Your task to perform on an android device: Open Google Maps and go to "Timeline" Image 0: 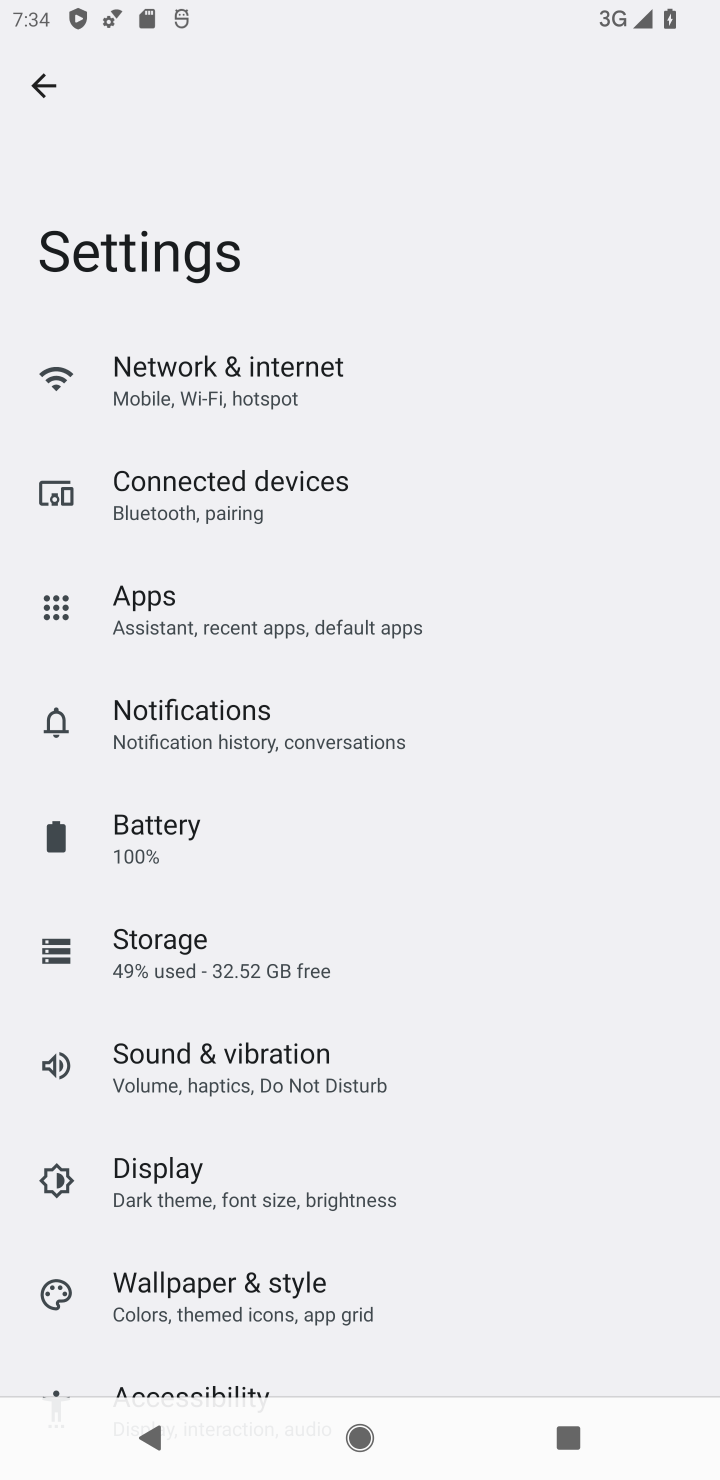
Step 0: press home button
Your task to perform on an android device: Open Google Maps and go to "Timeline" Image 1: 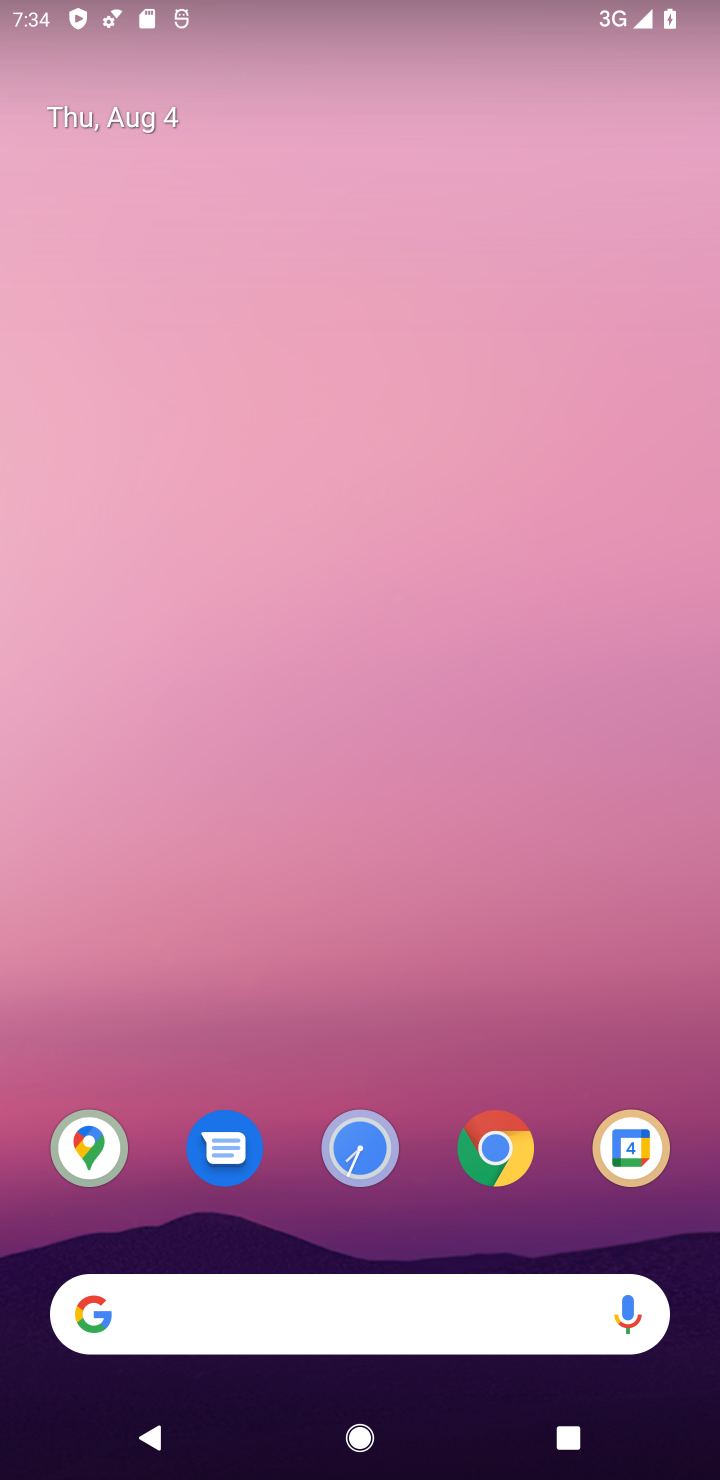
Step 1: drag from (602, 1051) to (444, 285)
Your task to perform on an android device: Open Google Maps and go to "Timeline" Image 2: 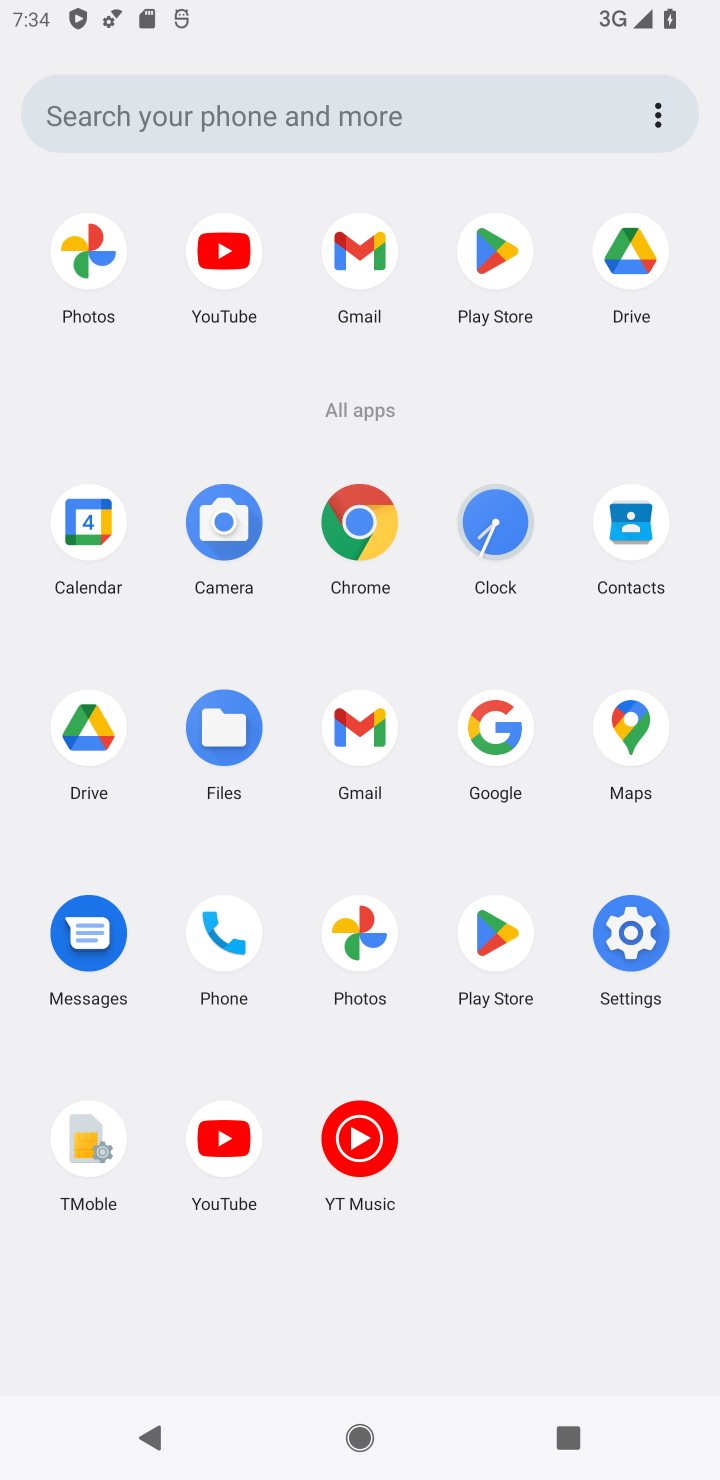
Step 2: click (627, 744)
Your task to perform on an android device: Open Google Maps and go to "Timeline" Image 3: 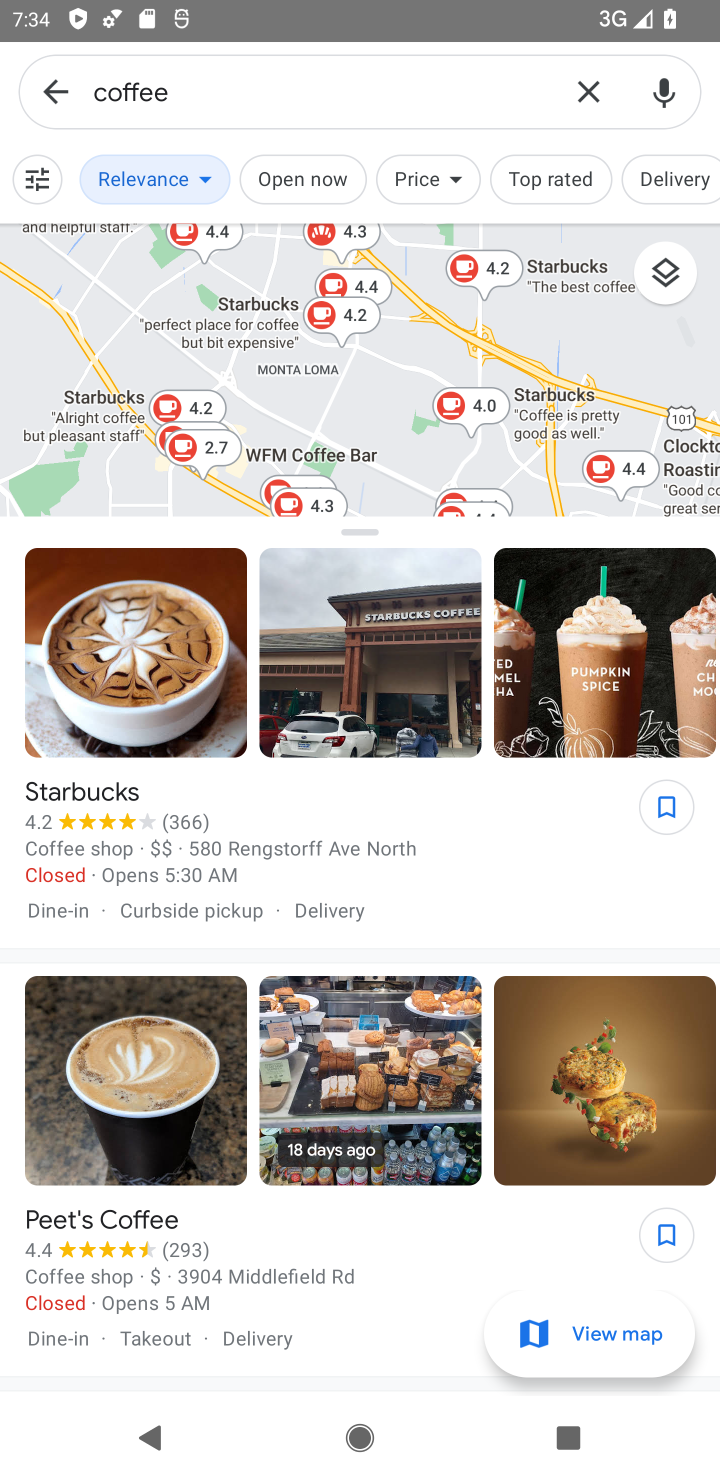
Step 3: click (60, 95)
Your task to perform on an android device: Open Google Maps and go to "Timeline" Image 4: 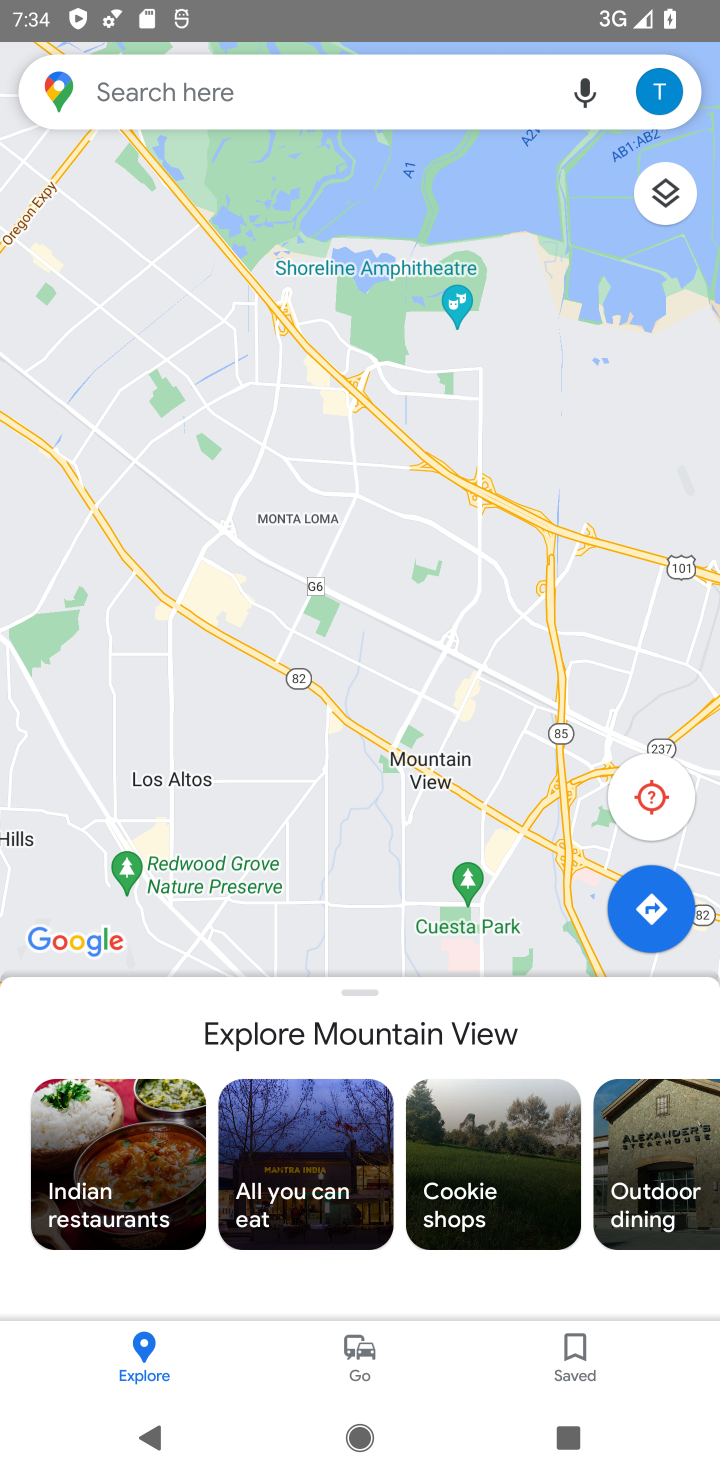
Step 4: click (661, 99)
Your task to perform on an android device: Open Google Maps and go to "Timeline" Image 5: 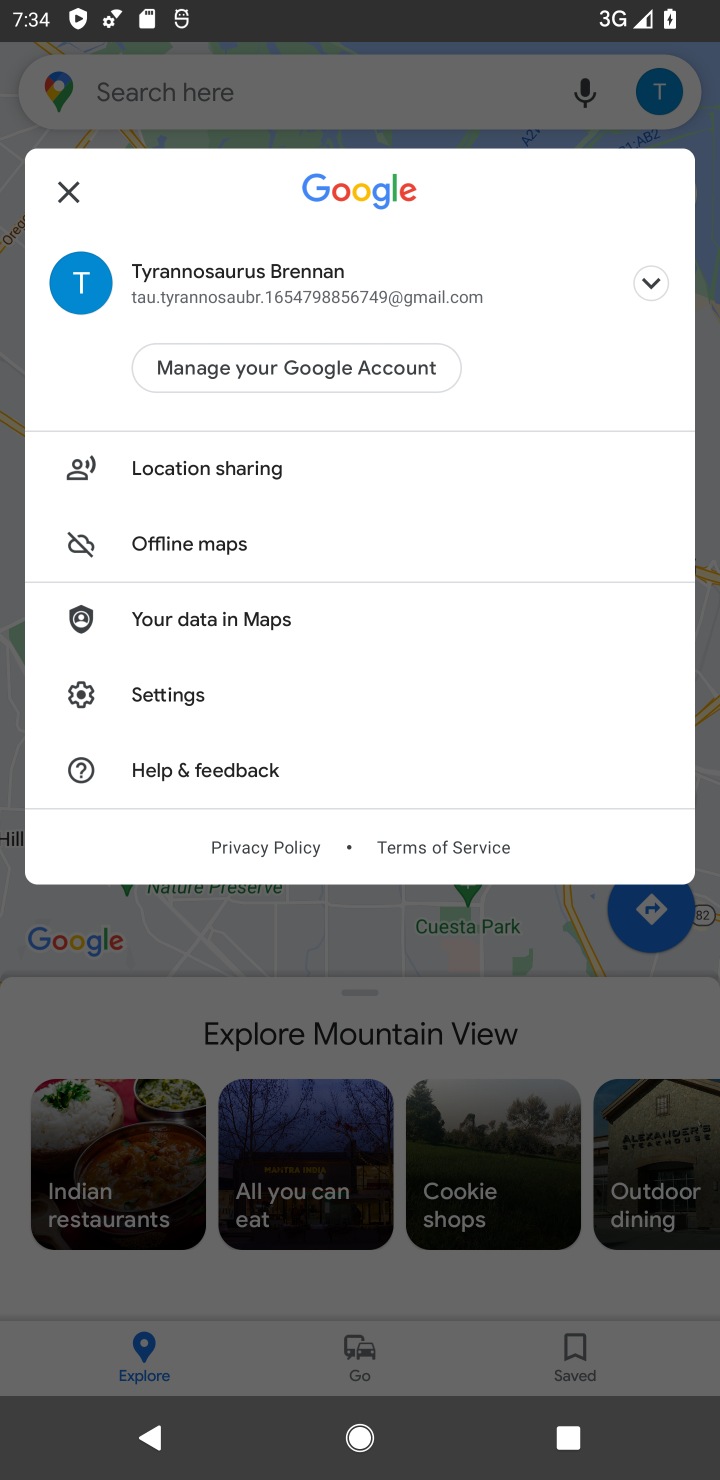
Step 5: click (294, 684)
Your task to perform on an android device: Open Google Maps and go to "Timeline" Image 6: 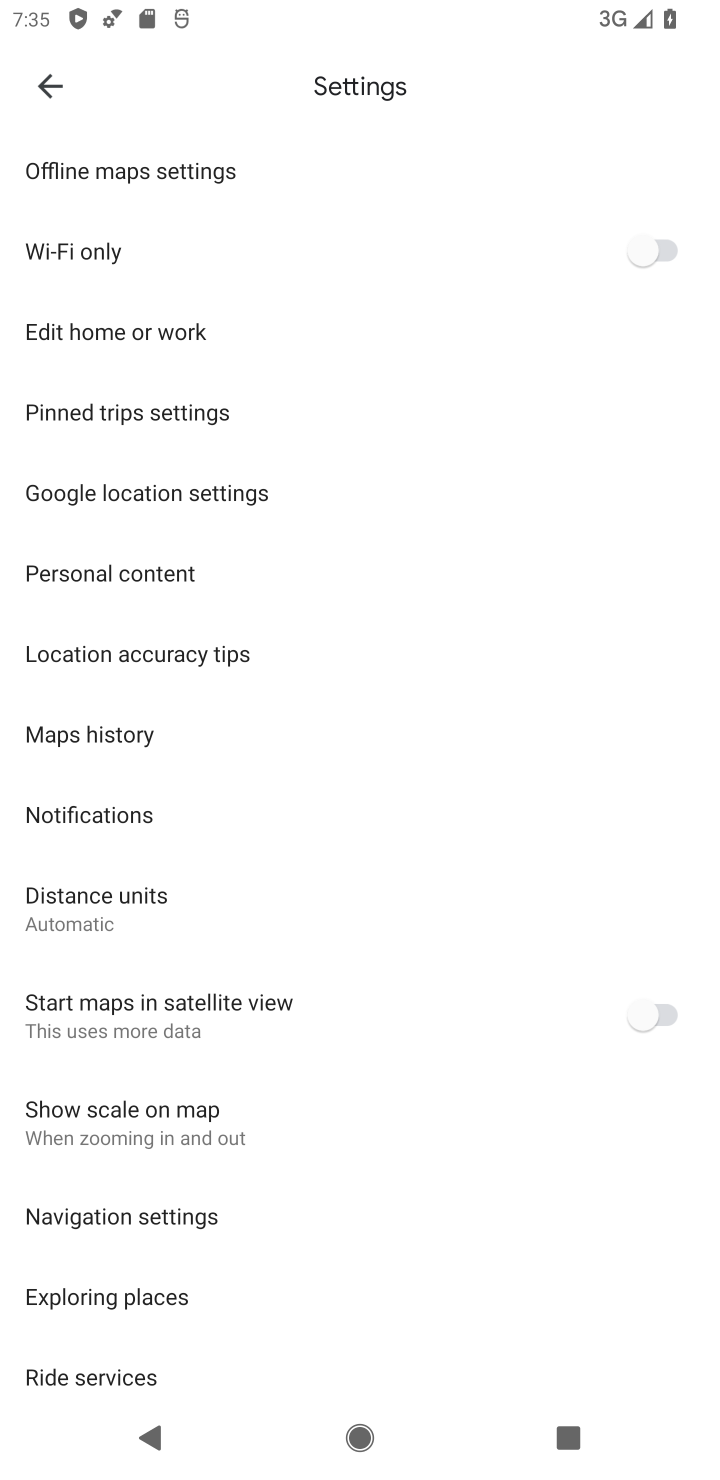
Step 6: task complete